Your task to perform on an android device: Open settings on Google Maps Image 0: 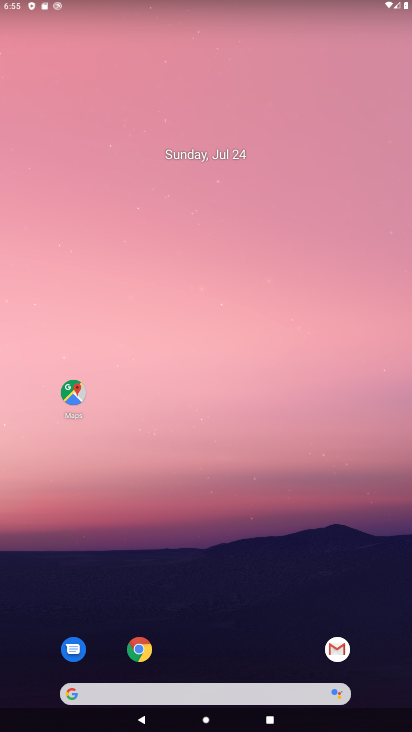
Step 0: click (64, 386)
Your task to perform on an android device: Open settings on Google Maps Image 1: 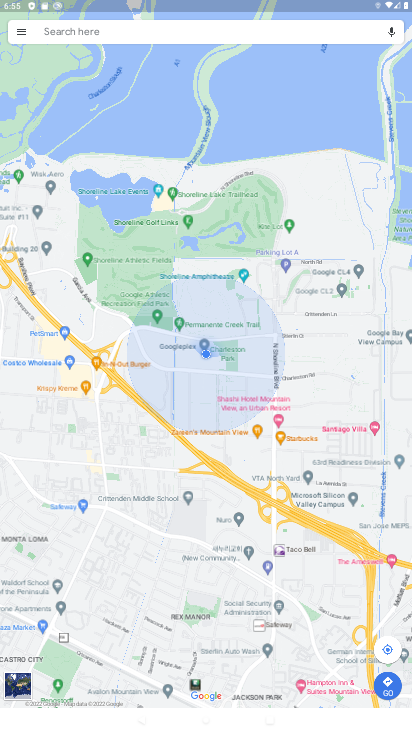
Step 1: click (16, 33)
Your task to perform on an android device: Open settings on Google Maps Image 2: 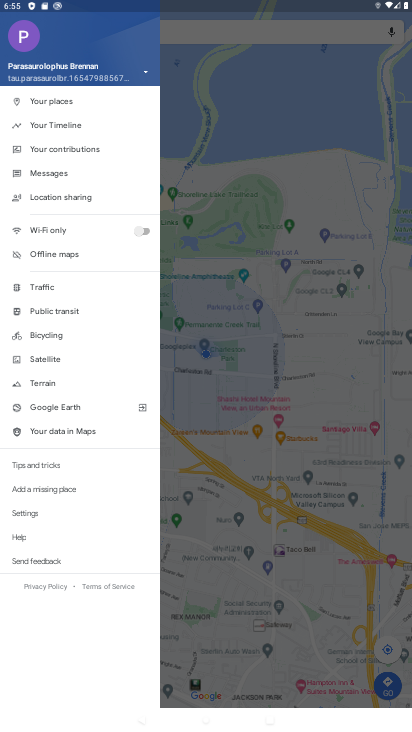
Step 2: click (44, 517)
Your task to perform on an android device: Open settings on Google Maps Image 3: 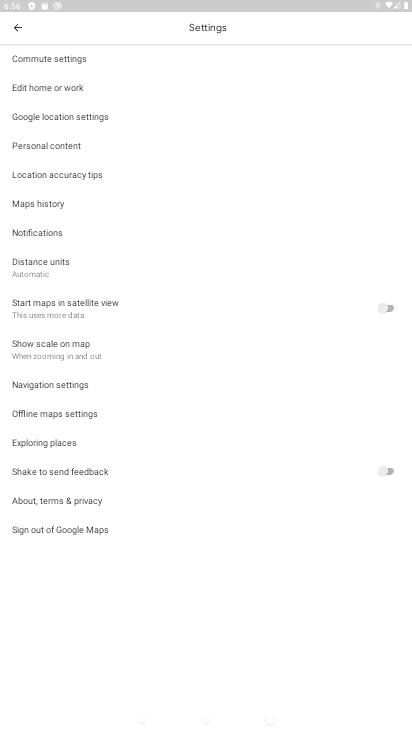
Step 3: task complete